Your task to perform on an android device: Open CNN.com Image 0: 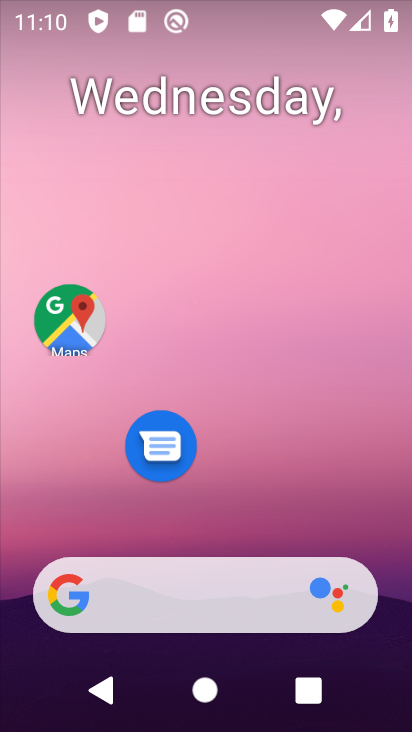
Step 0: drag from (227, 435) to (239, 113)
Your task to perform on an android device: Open CNN.com Image 1: 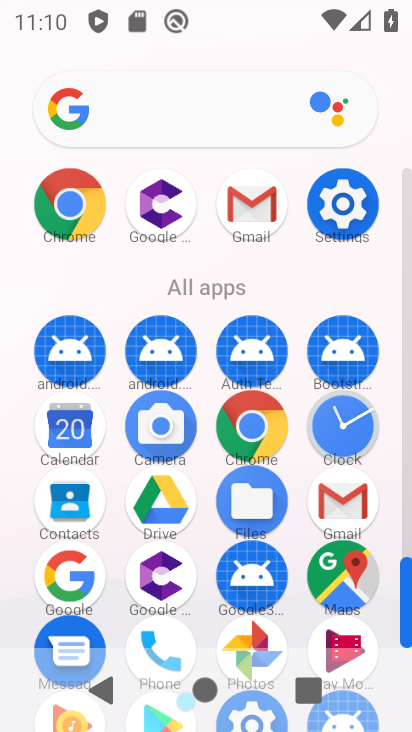
Step 1: click (243, 426)
Your task to perform on an android device: Open CNN.com Image 2: 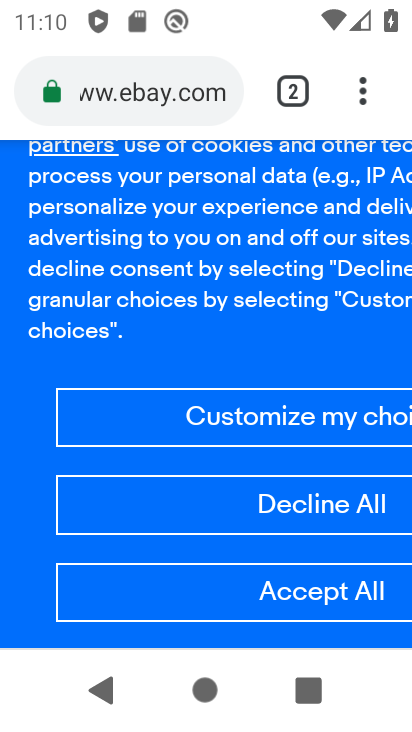
Step 2: click (292, 85)
Your task to perform on an android device: Open CNN.com Image 3: 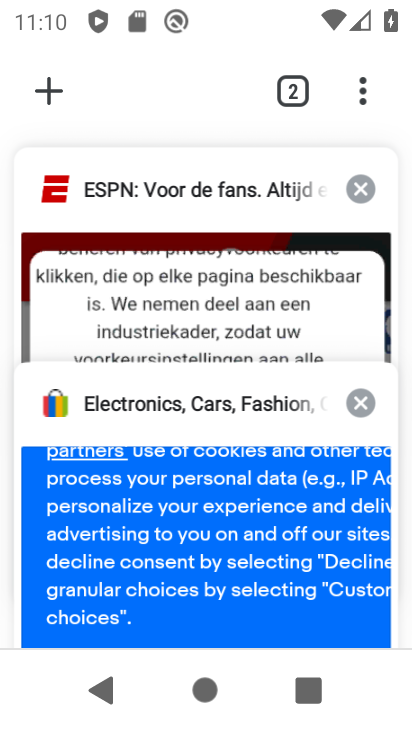
Step 3: click (49, 87)
Your task to perform on an android device: Open CNN.com Image 4: 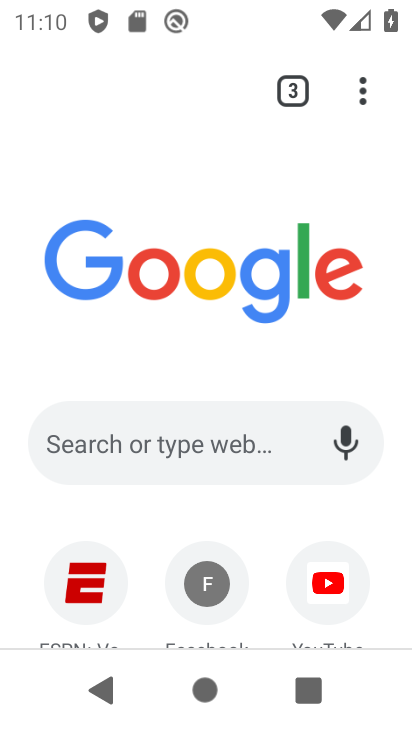
Step 4: click (125, 433)
Your task to perform on an android device: Open CNN.com Image 5: 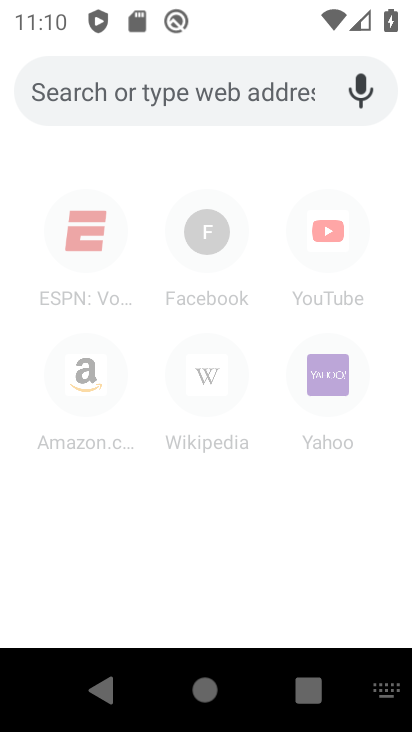
Step 5: type "cnn.com"
Your task to perform on an android device: Open CNN.com Image 6: 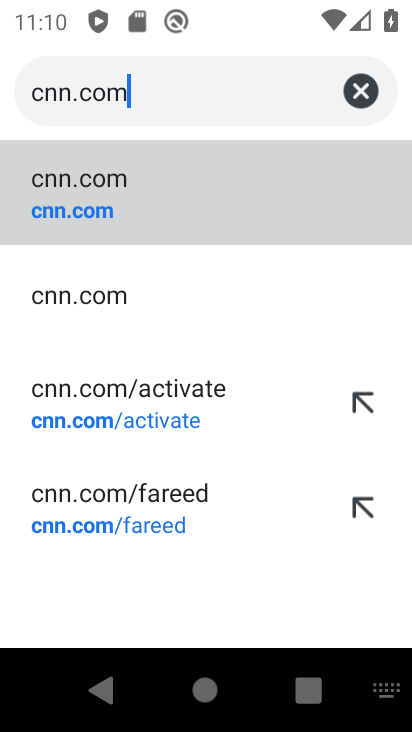
Step 6: click (75, 206)
Your task to perform on an android device: Open CNN.com Image 7: 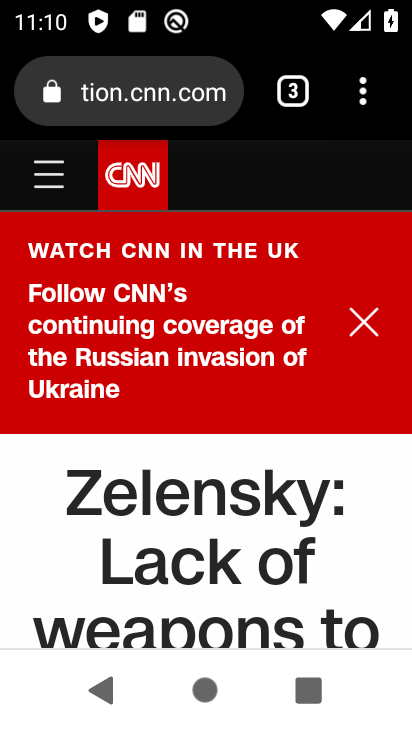
Step 7: task complete